Your task to perform on an android device: Search for sushi restaurants on Maps Image 0: 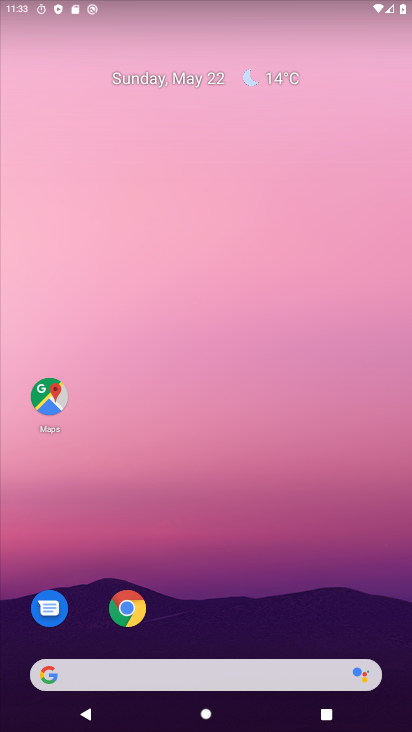
Step 0: click (48, 402)
Your task to perform on an android device: Search for sushi restaurants on Maps Image 1: 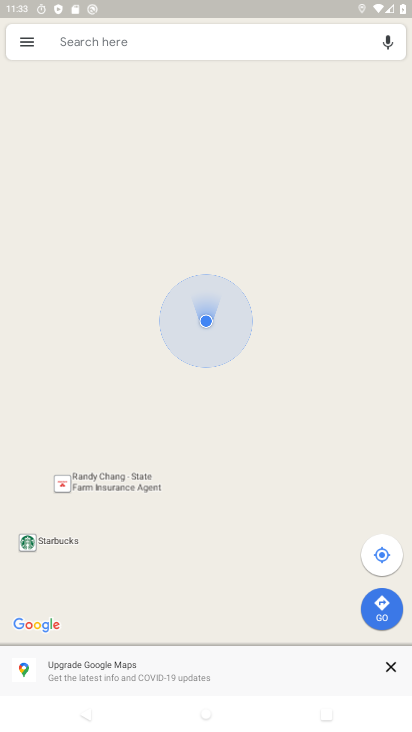
Step 1: click (171, 43)
Your task to perform on an android device: Search for sushi restaurants on Maps Image 2: 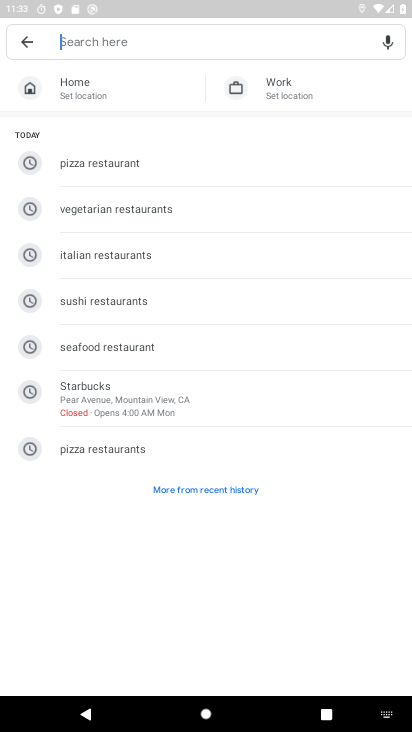
Step 2: click (114, 303)
Your task to perform on an android device: Search for sushi restaurants on Maps Image 3: 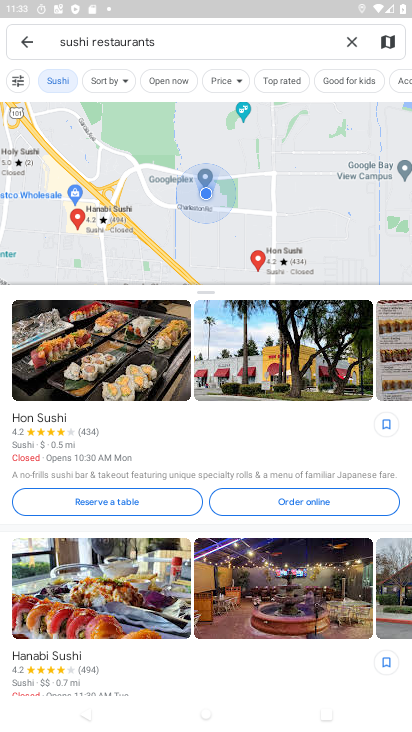
Step 3: task complete